Your task to perform on an android device: Search for the best rated drill on Lowes.com Image 0: 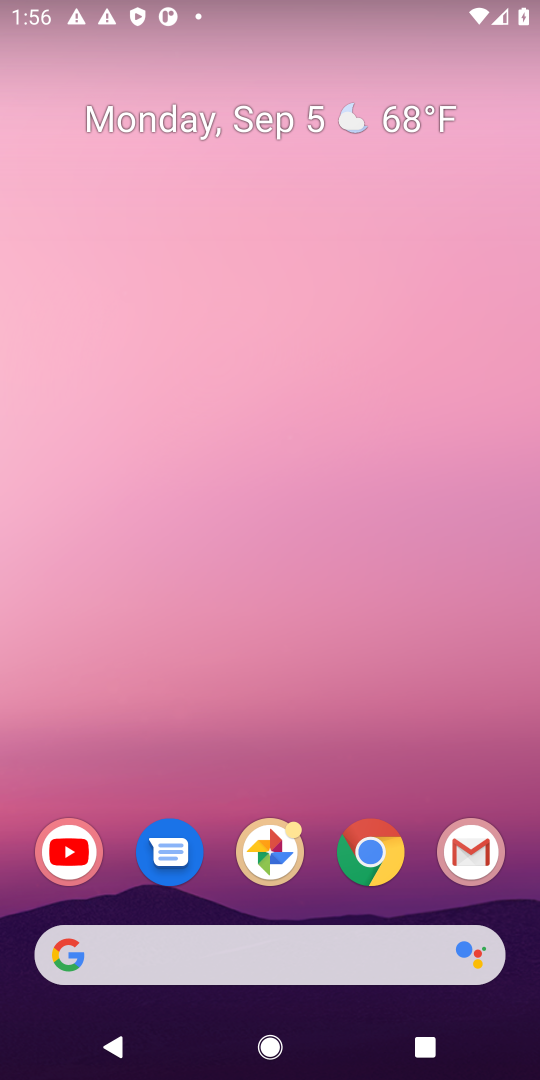
Step 0: click (369, 847)
Your task to perform on an android device: Search for the best rated drill on Lowes.com Image 1: 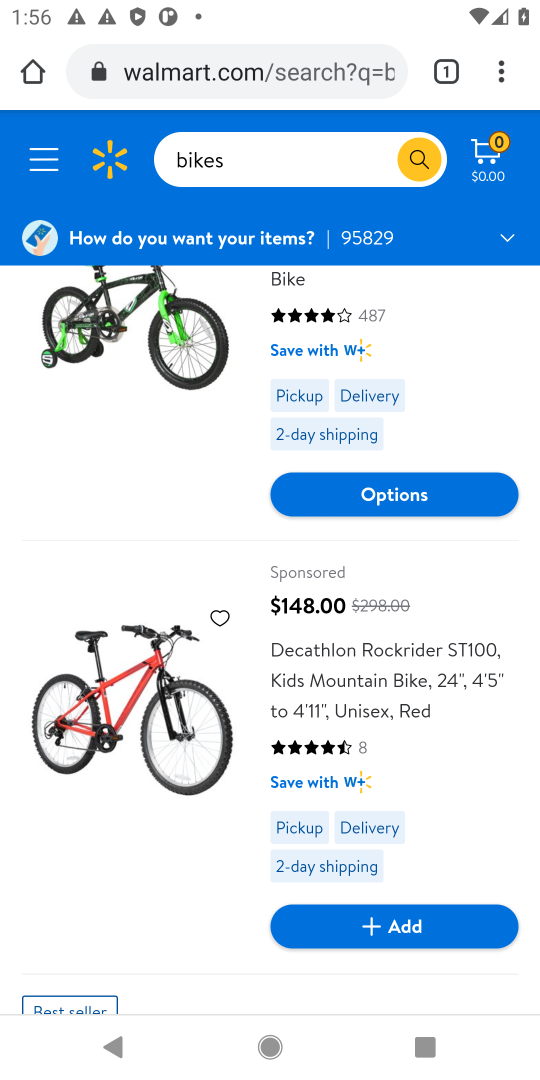
Step 1: click (280, 46)
Your task to perform on an android device: Search for the best rated drill on Lowes.com Image 2: 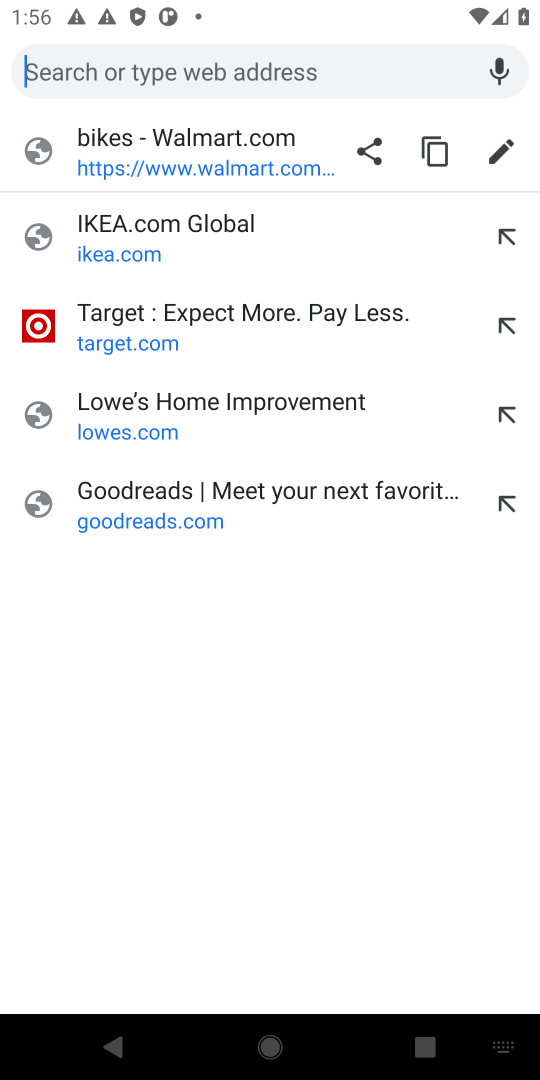
Step 2: type "Lowes.com"
Your task to perform on an android device: Search for the best rated drill on Lowes.com Image 3: 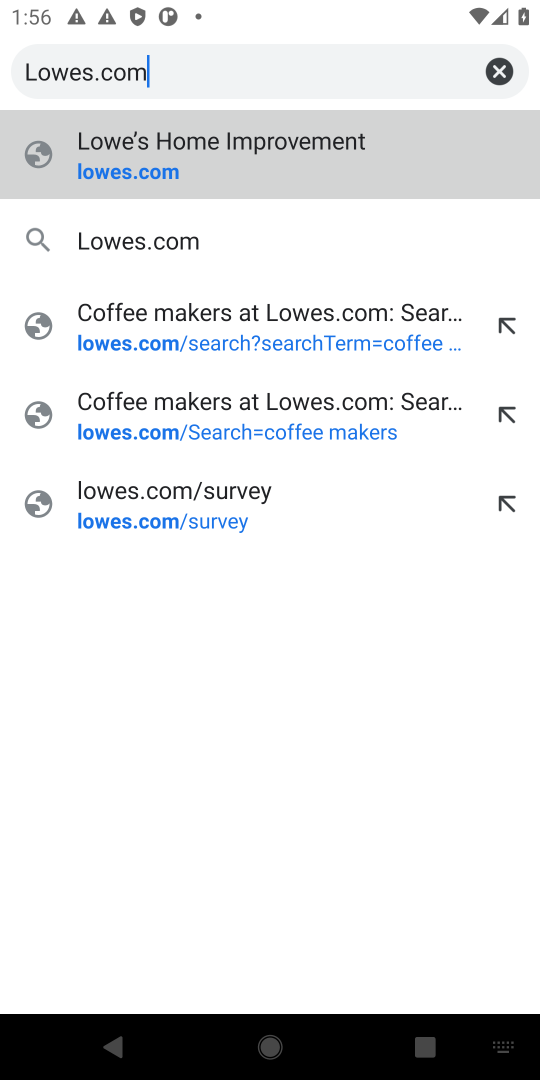
Step 3: click (112, 149)
Your task to perform on an android device: Search for the best rated drill on Lowes.com Image 4: 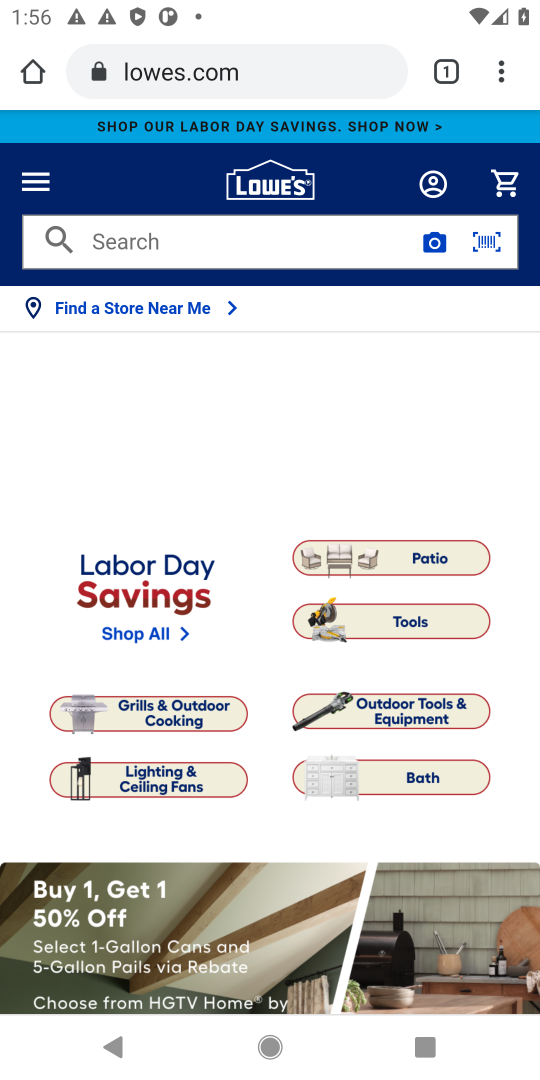
Step 4: click (147, 240)
Your task to perform on an android device: Search for the best rated drill on Lowes.com Image 5: 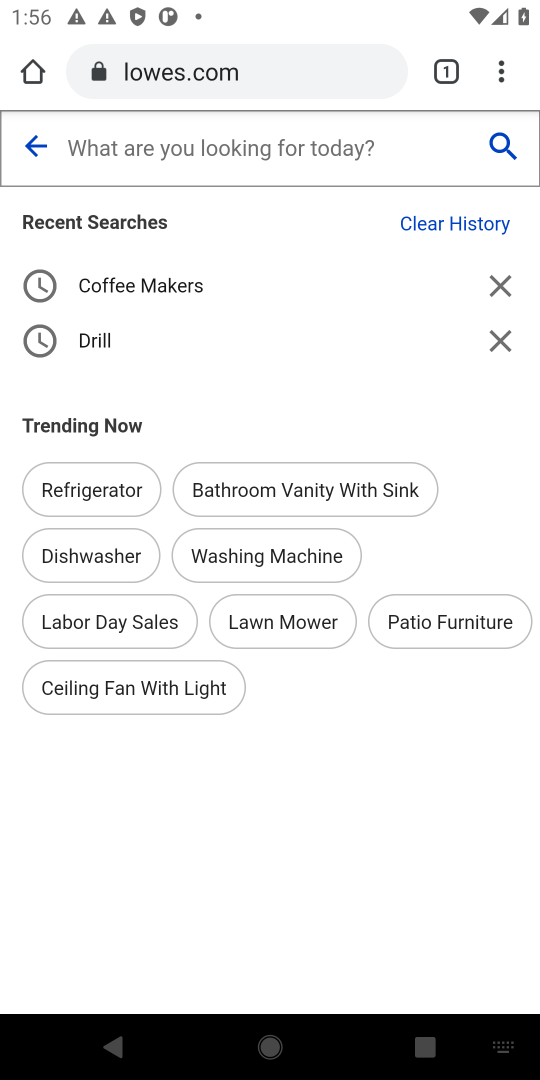
Step 5: type " drill"
Your task to perform on an android device: Search for the best rated drill on Lowes.com Image 6: 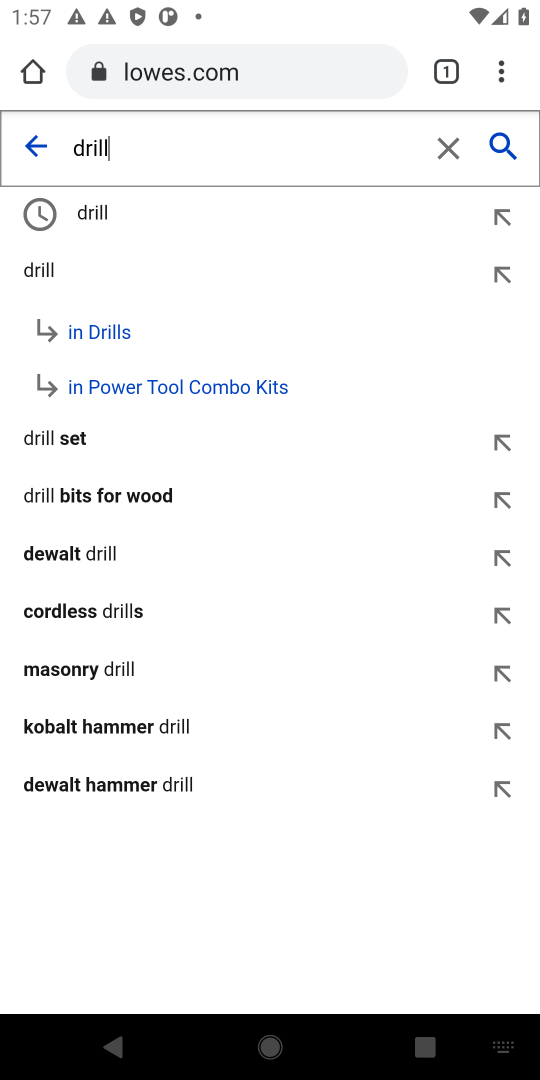
Step 6: click (97, 205)
Your task to perform on an android device: Search for the best rated drill on Lowes.com Image 7: 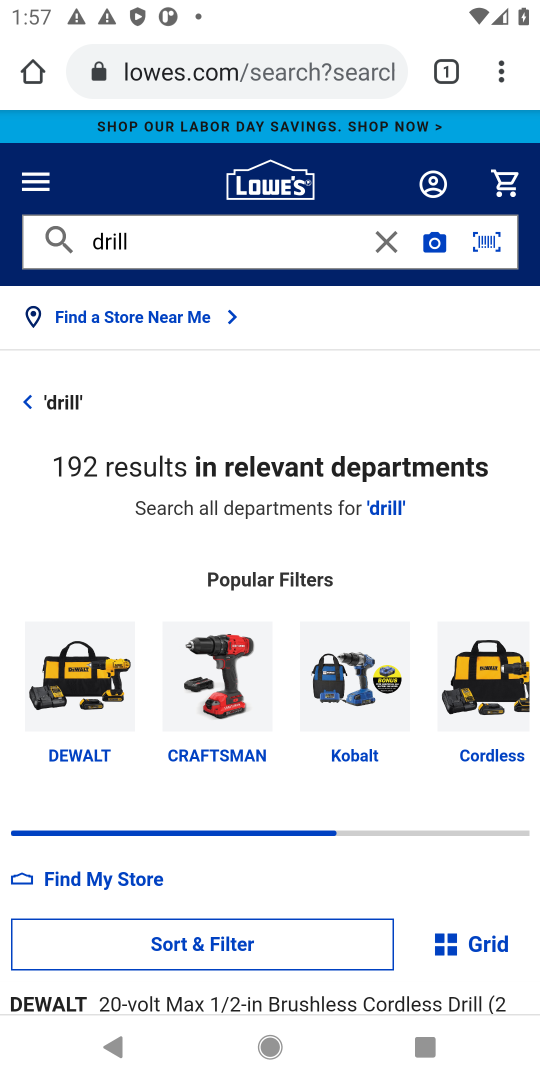
Step 7: drag from (345, 859) to (310, 301)
Your task to perform on an android device: Search for the best rated drill on Lowes.com Image 8: 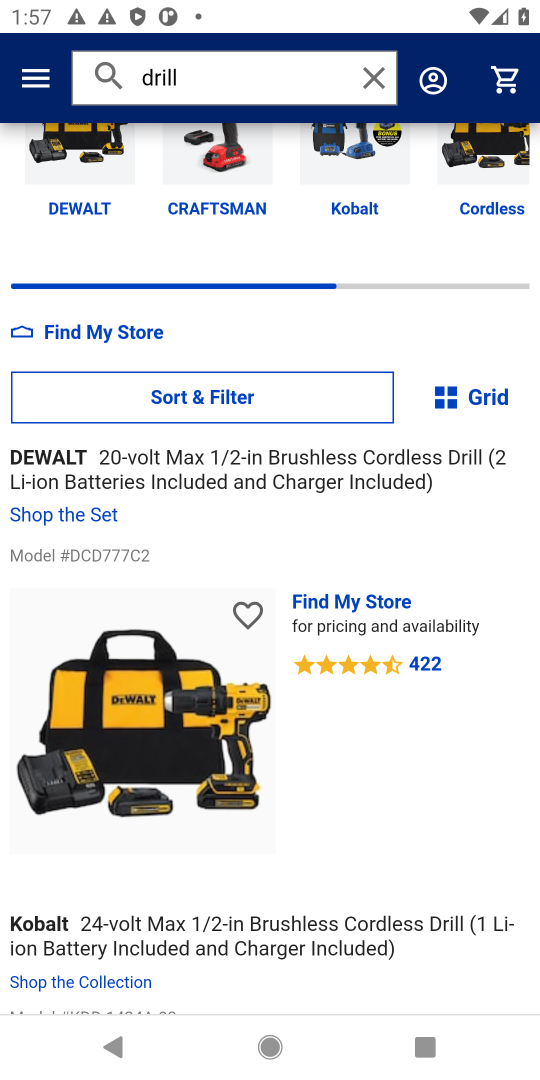
Step 8: click (186, 390)
Your task to perform on an android device: Search for the best rated drill on Lowes.com Image 9: 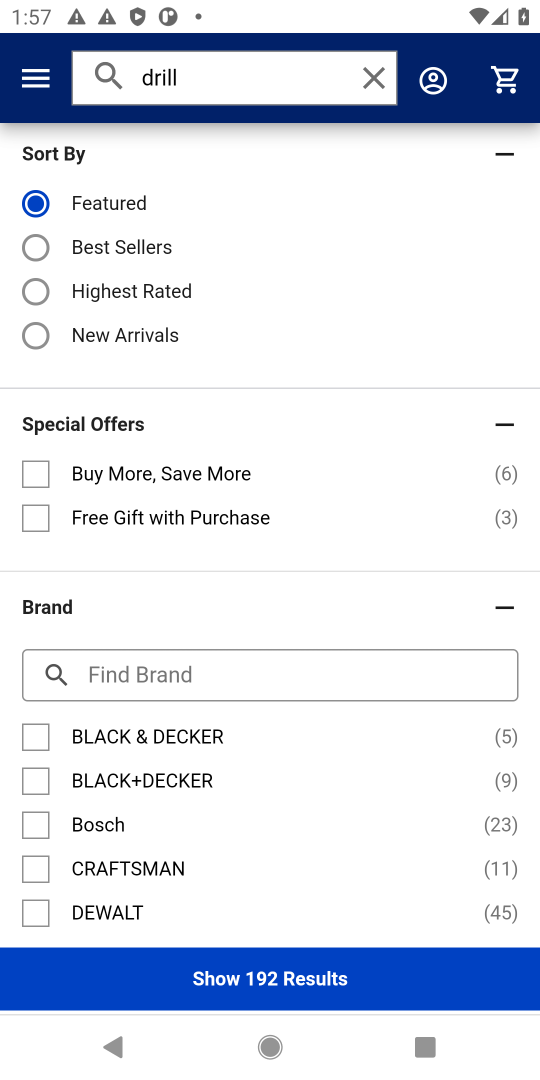
Step 9: click (40, 290)
Your task to perform on an android device: Search for the best rated drill on Lowes.com Image 10: 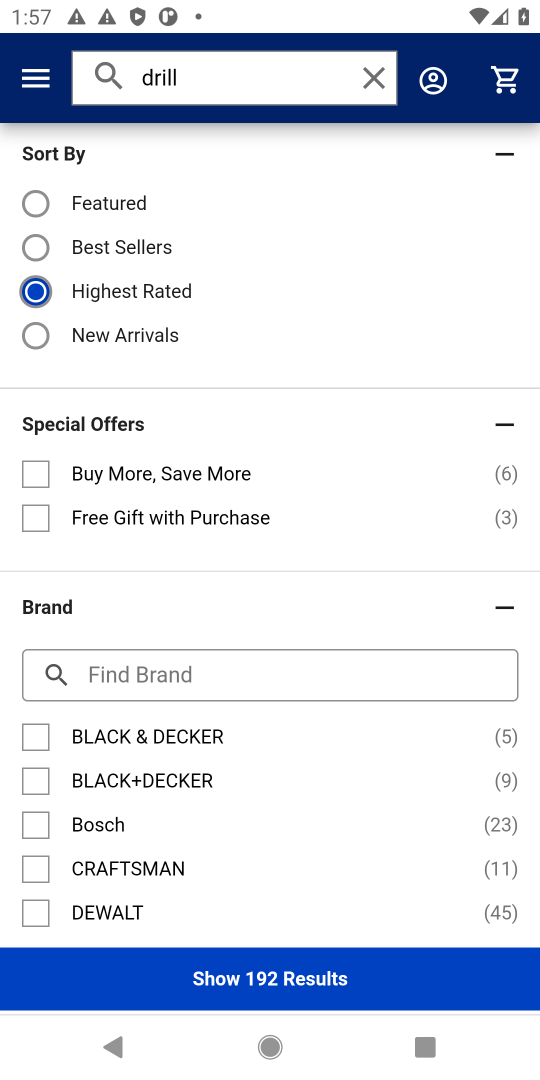
Step 10: click (264, 981)
Your task to perform on an android device: Search for the best rated drill on Lowes.com Image 11: 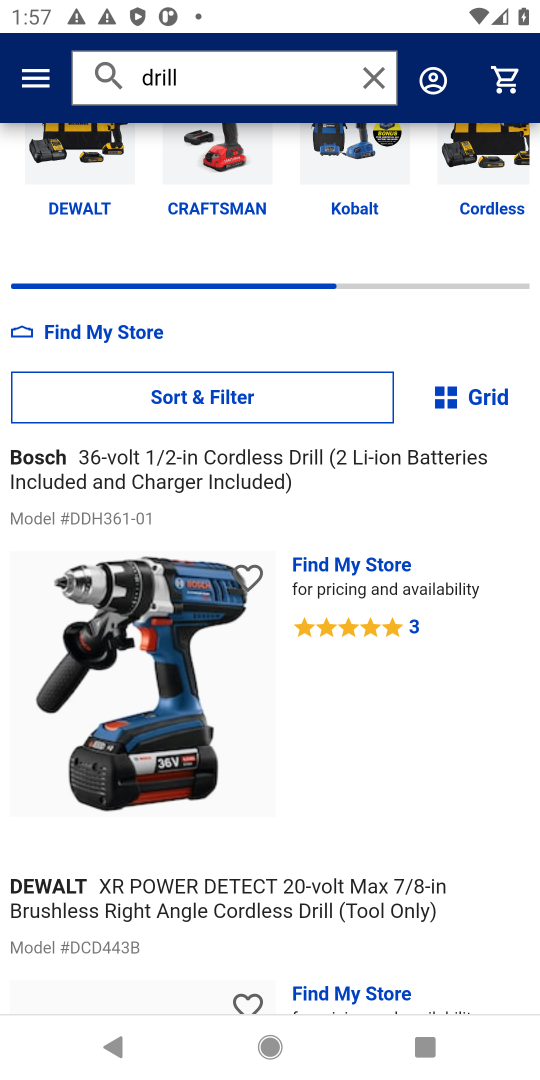
Step 11: drag from (269, 822) to (263, 327)
Your task to perform on an android device: Search for the best rated drill on Lowes.com Image 12: 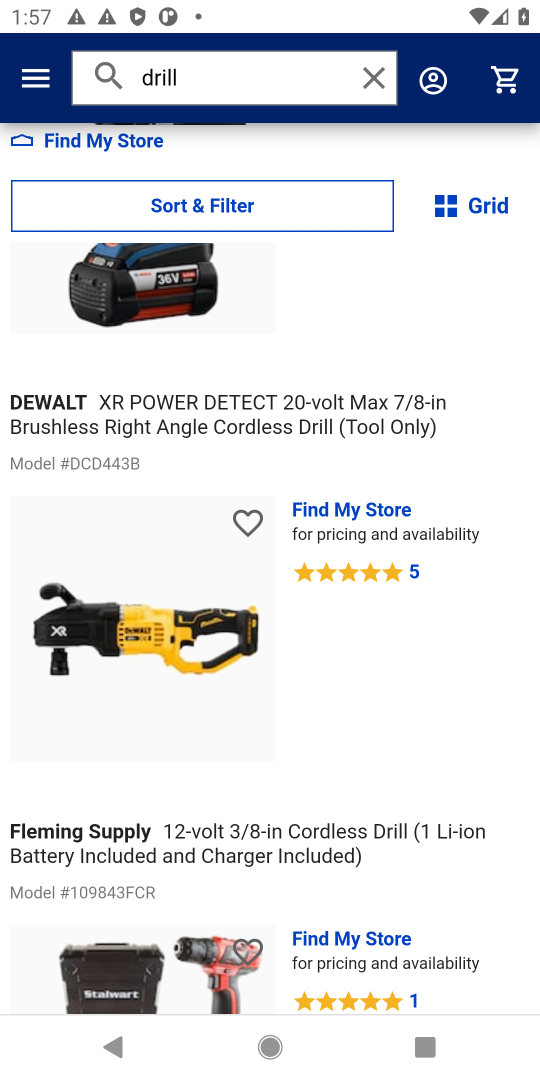
Step 12: click (264, 315)
Your task to perform on an android device: Search for the best rated drill on Lowes.com Image 13: 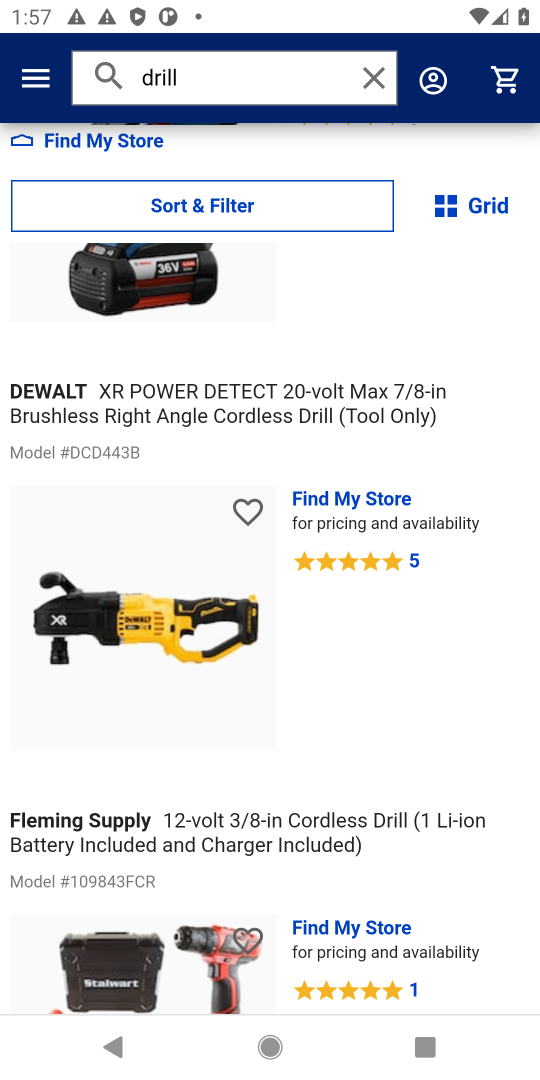
Step 13: task complete